Your task to perform on an android device: toggle data saver in the chrome app Image 0: 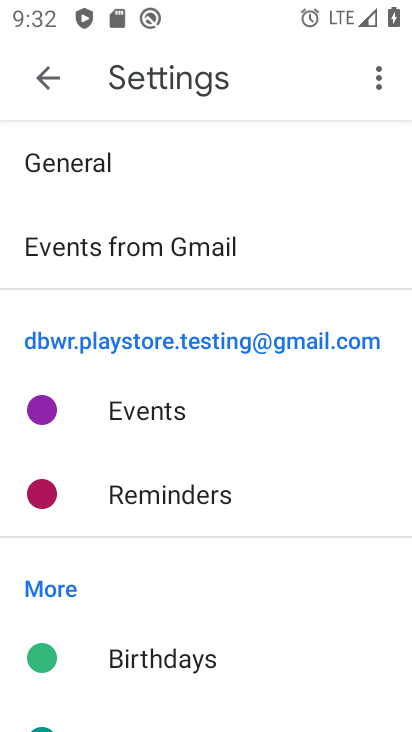
Step 0: press home button
Your task to perform on an android device: toggle data saver in the chrome app Image 1: 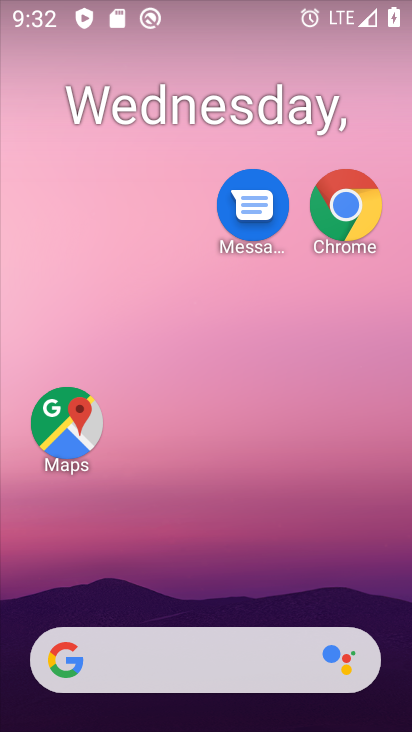
Step 1: drag from (213, 592) to (195, 0)
Your task to perform on an android device: toggle data saver in the chrome app Image 2: 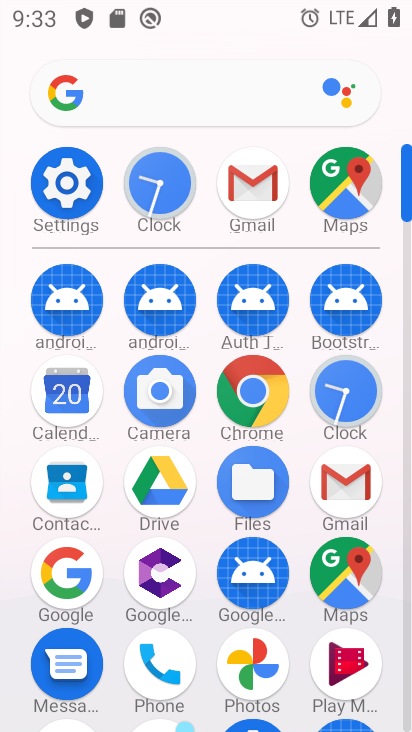
Step 2: click (250, 374)
Your task to perform on an android device: toggle data saver in the chrome app Image 3: 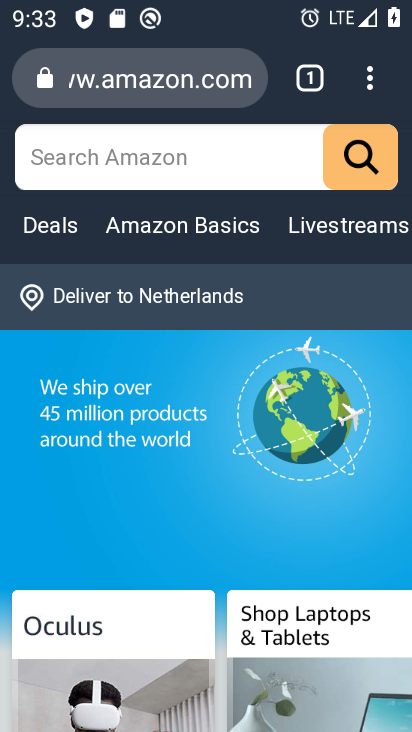
Step 3: drag from (377, 73) to (226, 619)
Your task to perform on an android device: toggle data saver in the chrome app Image 4: 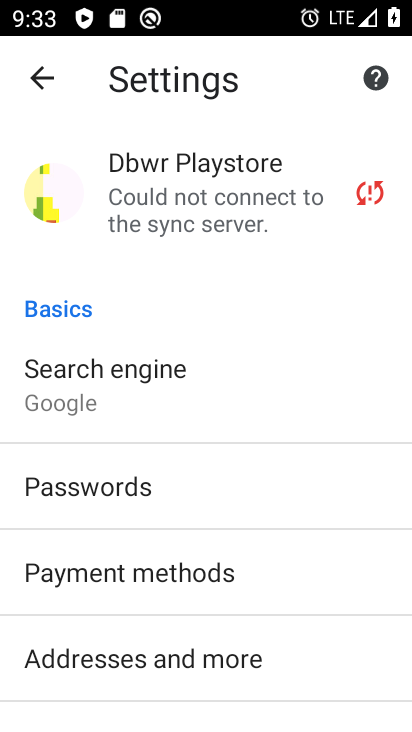
Step 4: drag from (173, 629) to (297, 112)
Your task to perform on an android device: toggle data saver in the chrome app Image 5: 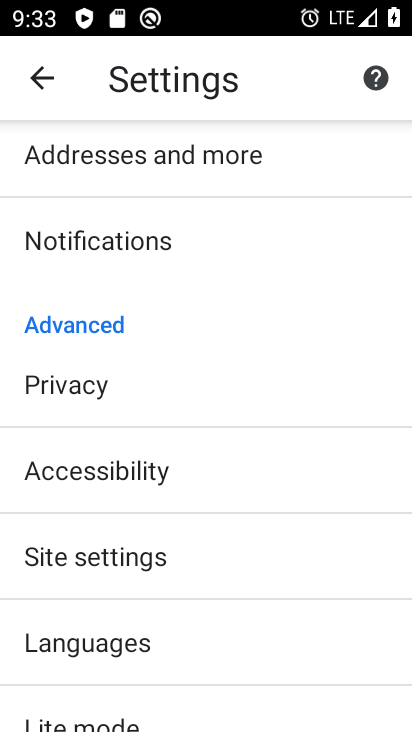
Step 5: click (125, 698)
Your task to perform on an android device: toggle data saver in the chrome app Image 6: 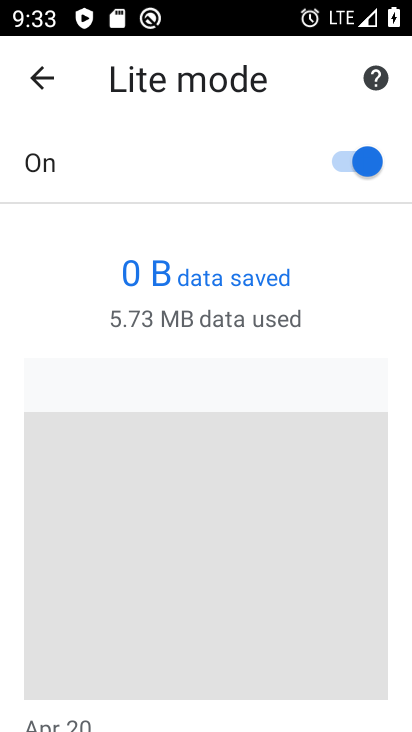
Step 6: click (352, 151)
Your task to perform on an android device: toggle data saver in the chrome app Image 7: 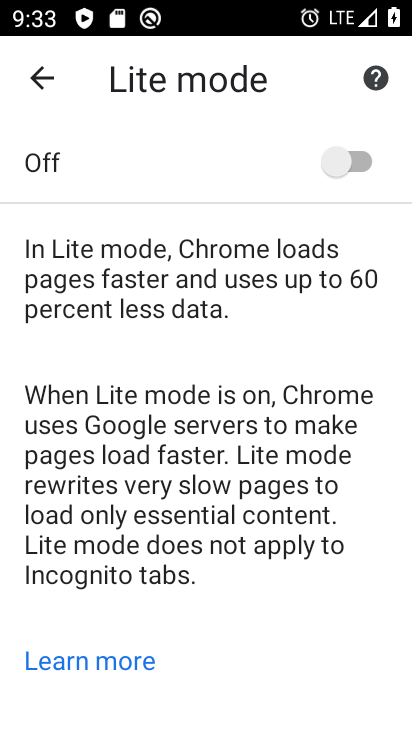
Step 7: task complete